Your task to perform on an android device: open app "Google Play Games" Image 0: 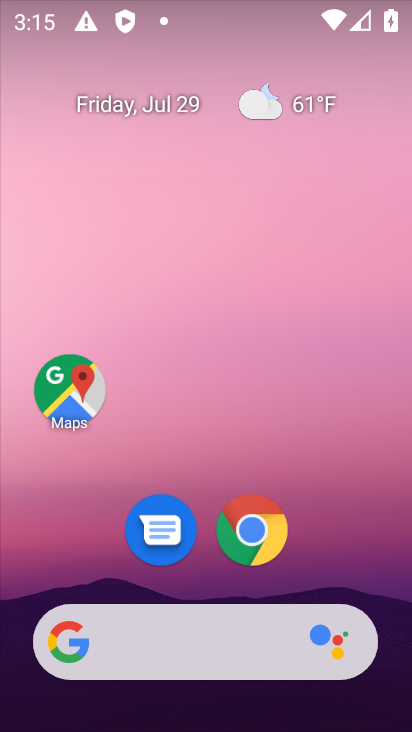
Step 0: drag from (354, 560) to (343, 65)
Your task to perform on an android device: open app "Google Play Games" Image 1: 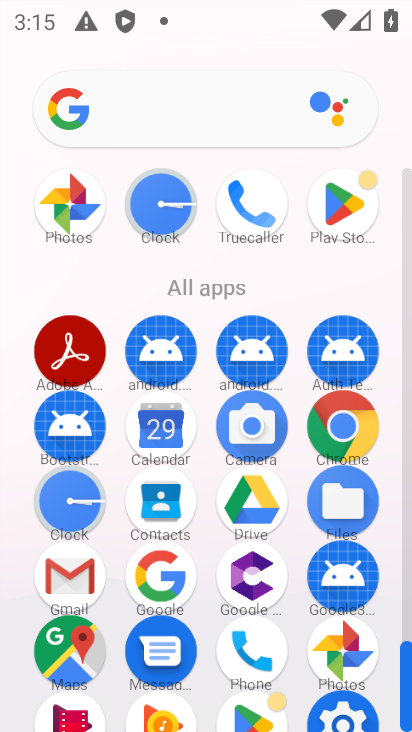
Step 1: click (341, 216)
Your task to perform on an android device: open app "Google Play Games" Image 2: 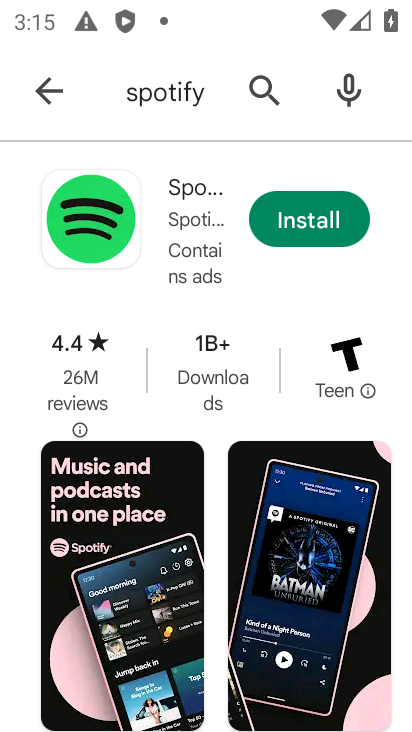
Step 2: click (261, 85)
Your task to perform on an android device: open app "Google Play Games" Image 3: 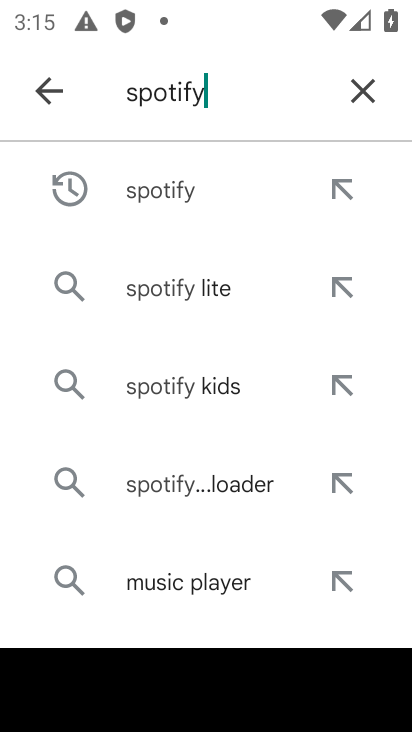
Step 3: click (367, 98)
Your task to perform on an android device: open app "Google Play Games" Image 4: 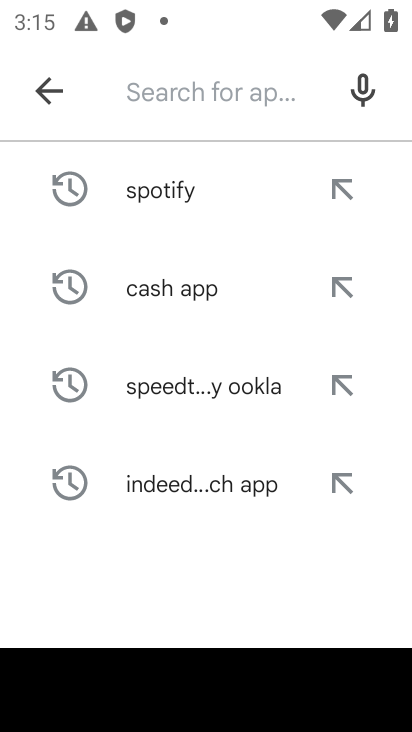
Step 4: type "Google Play Games"
Your task to perform on an android device: open app "Google Play Games" Image 5: 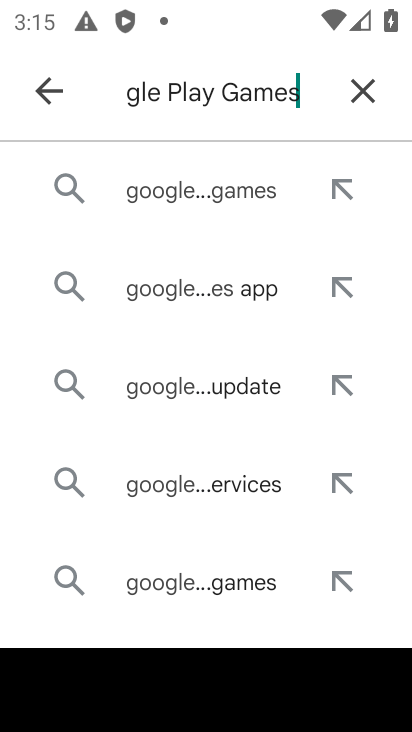
Step 5: click (187, 195)
Your task to perform on an android device: open app "Google Play Games" Image 6: 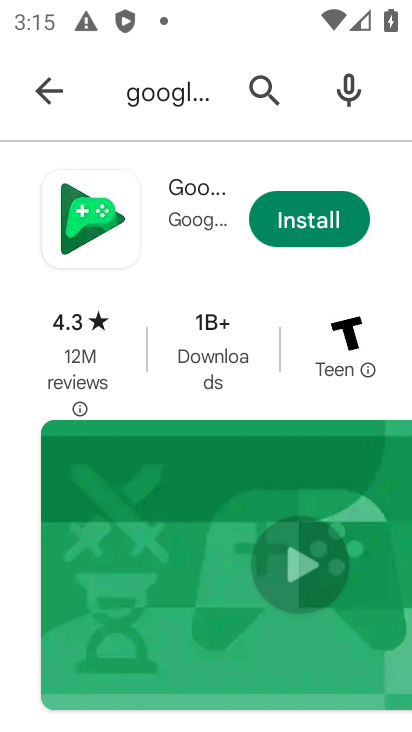
Step 6: task complete